Your task to perform on an android device: Search for seafood restaurants on Google Maps Image 0: 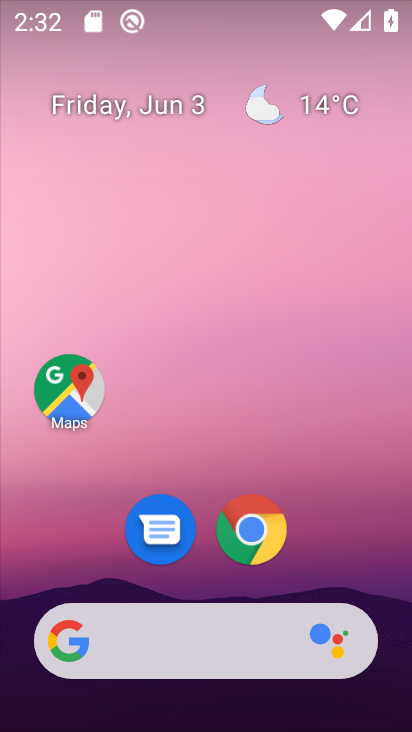
Step 0: drag from (191, 179) to (168, 2)
Your task to perform on an android device: Search for seafood restaurants on Google Maps Image 1: 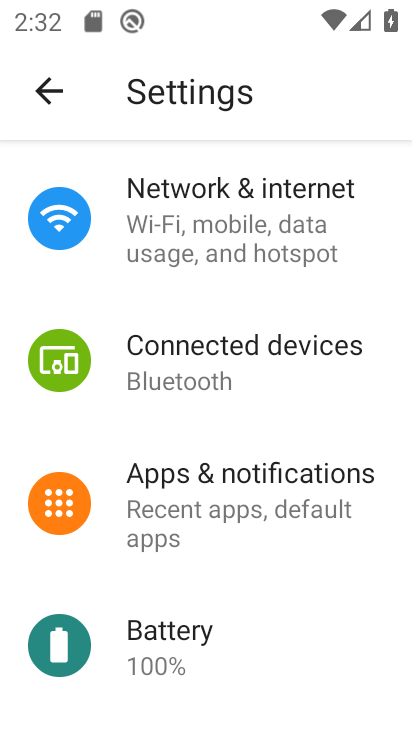
Step 1: press back button
Your task to perform on an android device: Search for seafood restaurants on Google Maps Image 2: 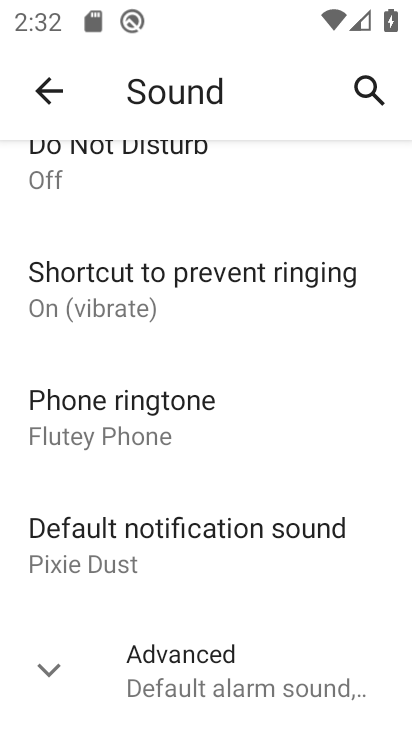
Step 2: press home button
Your task to perform on an android device: Search for seafood restaurants on Google Maps Image 3: 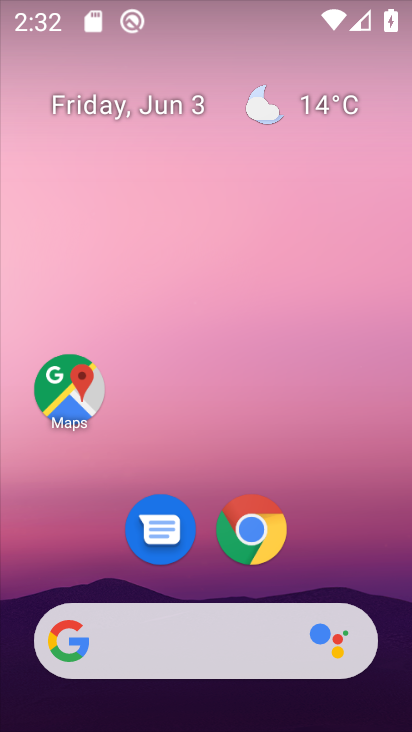
Step 3: drag from (292, 226) to (264, 45)
Your task to perform on an android device: Search for seafood restaurants on Google Maps Image 4: 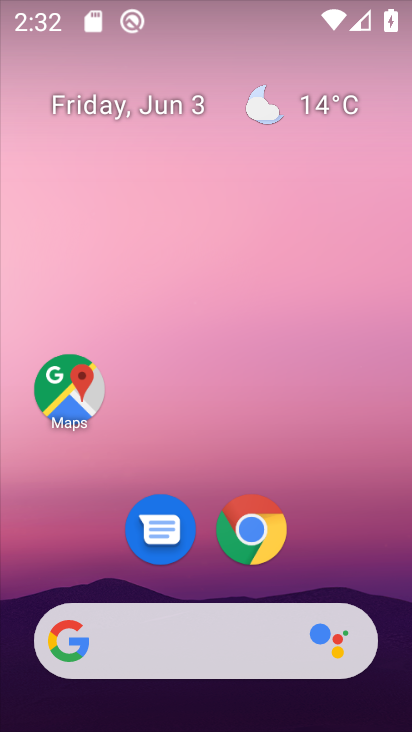
Step 4: drag from (196, 664) to (227, 75)
Your task to perform on an android device: Search for seafood restaurants on Google Maps Image 5: 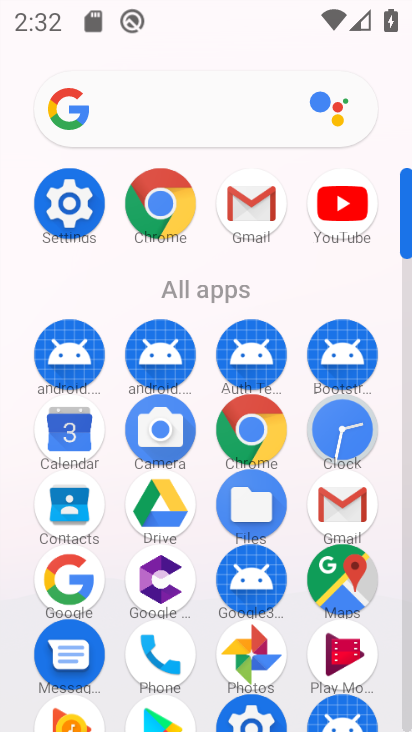
Step 5: drag from (230, 625) to (240, 56)
Your task to perform on an android device: Search for seafood restaurants on Google Maps Image 6: 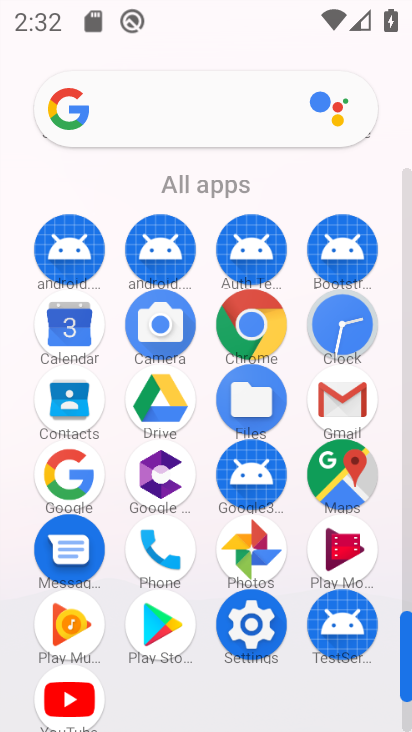
Step 6: click (347, 481)
Your task to perform on an android device: Search for seafood restaurants on Google Maps Image 7: 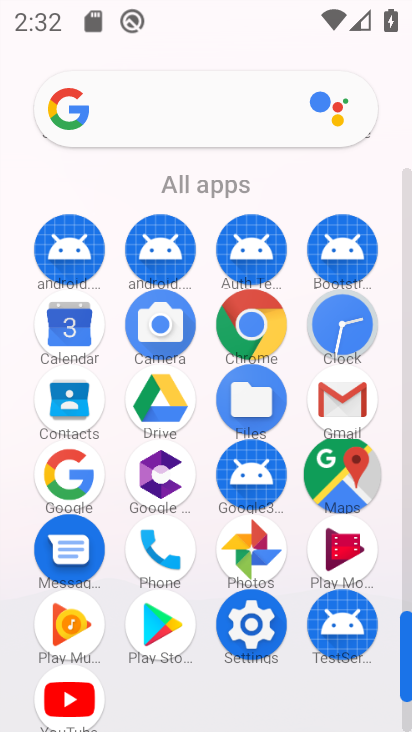
Step 7: click (346, 482)
Your task to perform on an android device: Search for seafood restaurants on Google Maps Image 8: 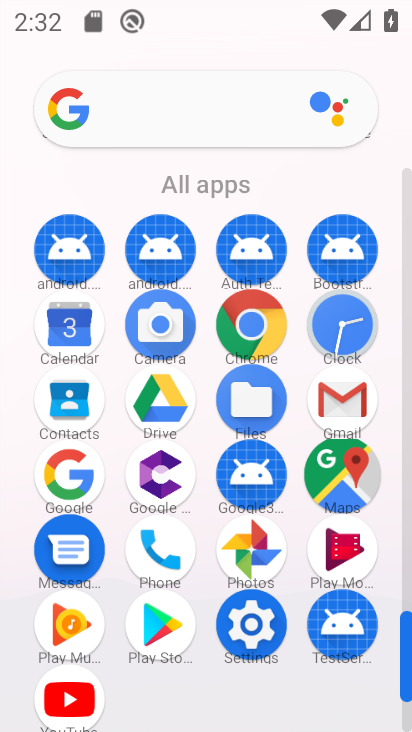
Step 8: click (346, 482)
Your task to perform on an android device: Search for seafood restaurants on Google Maps Image 9: 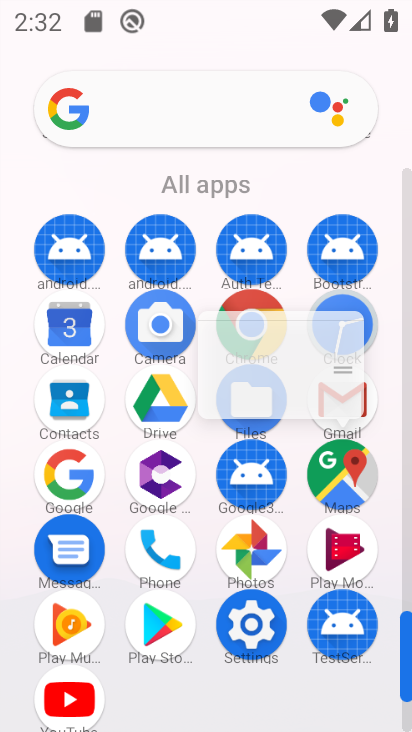
Step 9: click (346, 483)
Your task to perform on an android device: Search for seafood restaurants on Google Maps Image 10: 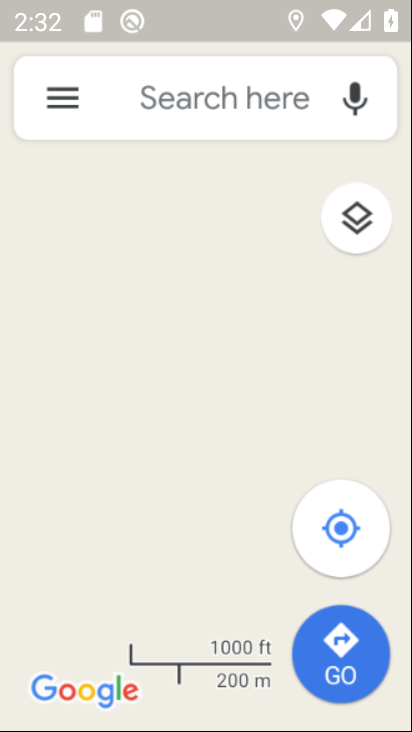
Step 10: click (345, 484)
Your task to perform on an android device: Search for seafood restaurants on Google Maps Image 11: 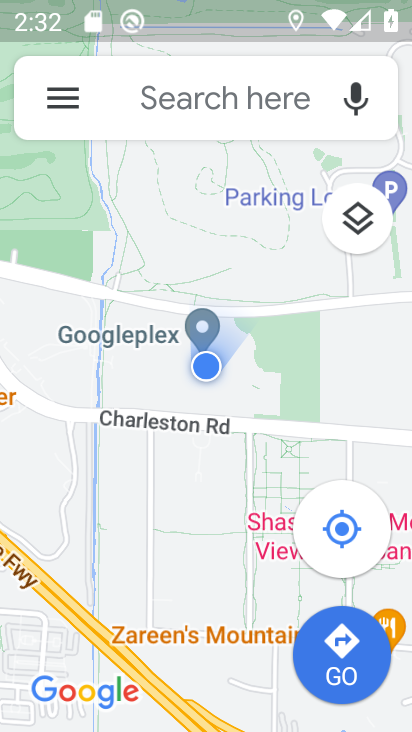
Step 11: click (143, 98)
Your task to perform on an android device: Search for seafood restaurants on Google Maps Image 12: 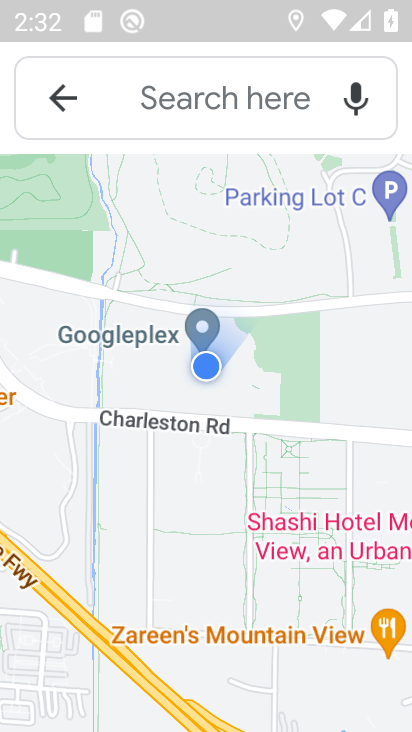
Step 12: click (144, 98)
Your task to perform on an android device: Search for seafood restaurants on Google Maps Image 13: 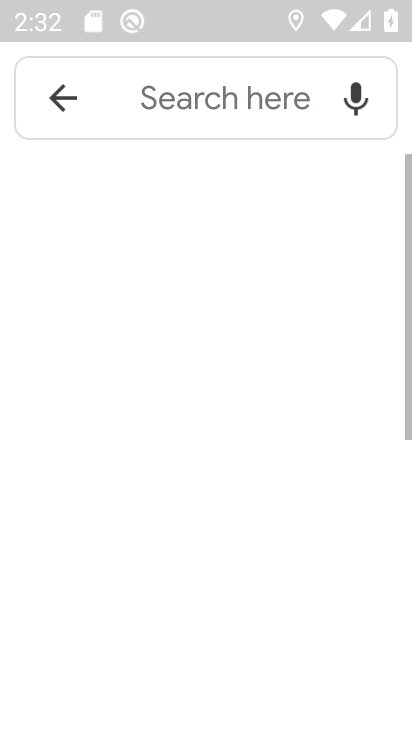
Step 13: click (147, 102)
Your task to perform on an android device: Search for seafood restaurants on Google Maps Image 14: 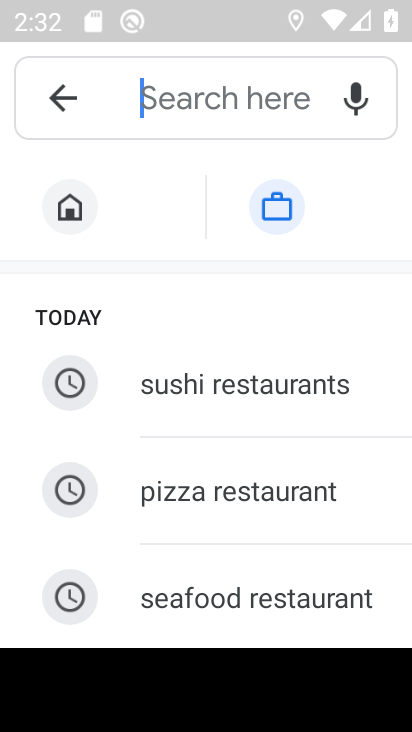
Step 14: click (200, 608)
Your task to perform on an android device: Search for seafood restaurants on Google Maps Image 15: 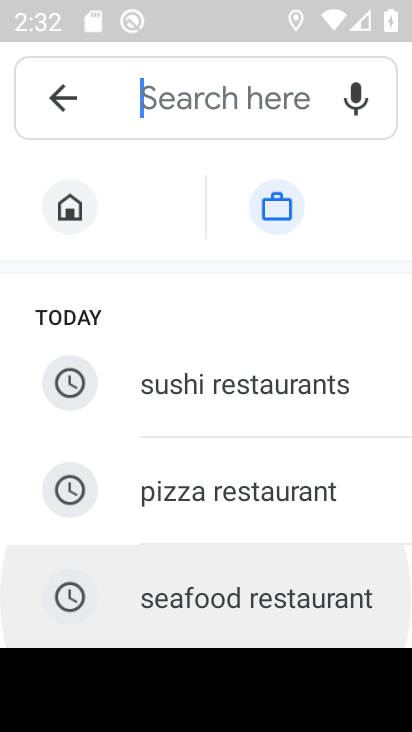
Step 15: click (197, 610)
Your task to perform on an android device: Search for seafood restaurants on Google Maps Image 16: 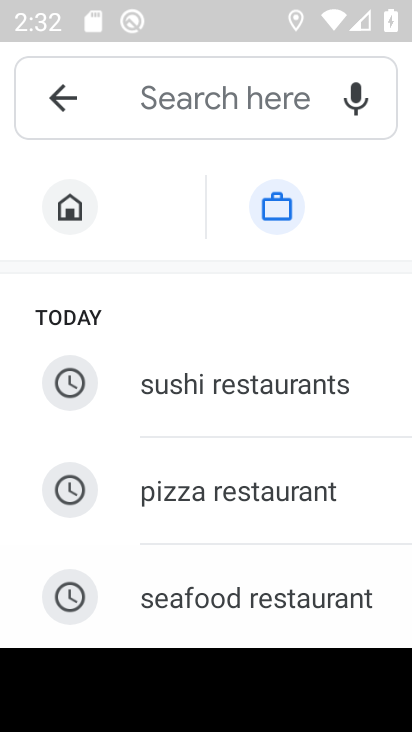
Step 16: click (193, 608)
Your task to perform on an android device: Search for seafood restaurants on Google Maps Image 17: 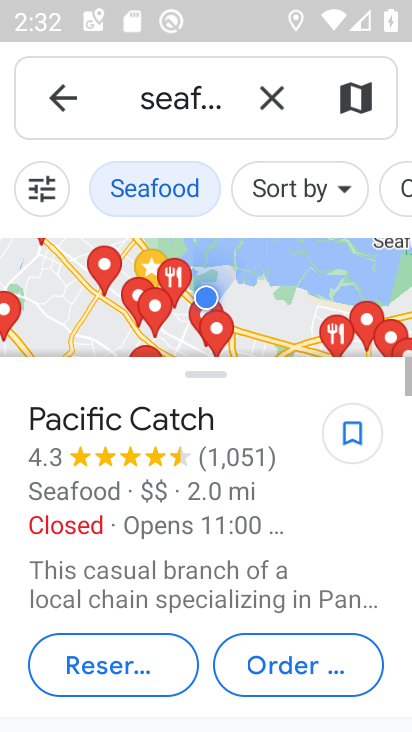
Step 17: task complete